Your task to perform on an android device: Open the calendar app, open the side menu, and click the "Day" option Image 0: 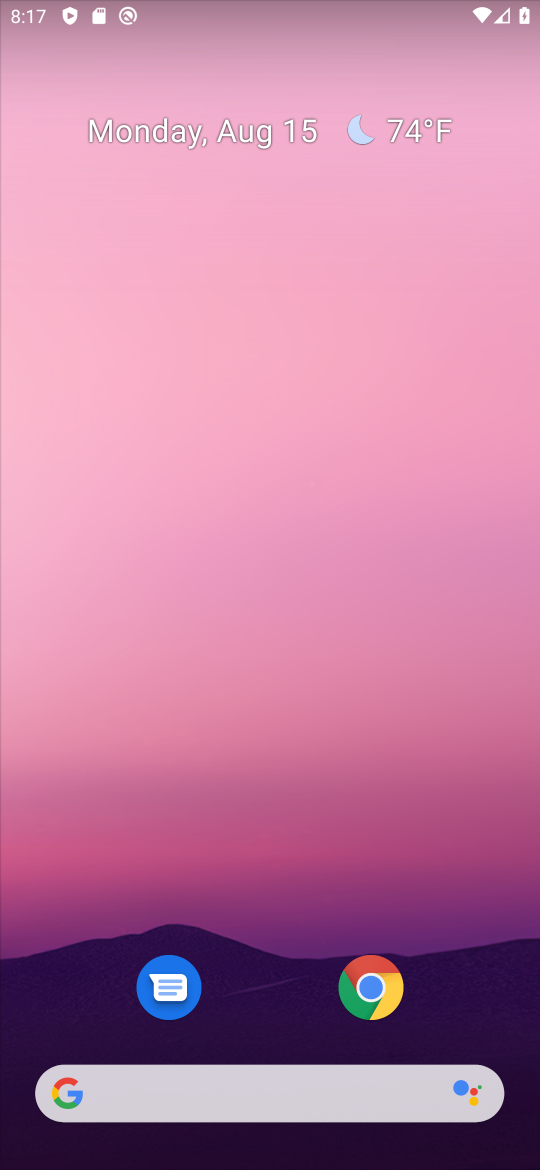
Step 0: drag from (296, 1036) to (220, 427)
Your task to perform on an android device: Open the calendar app, open the side menu, and click the "Day" option Image 1: 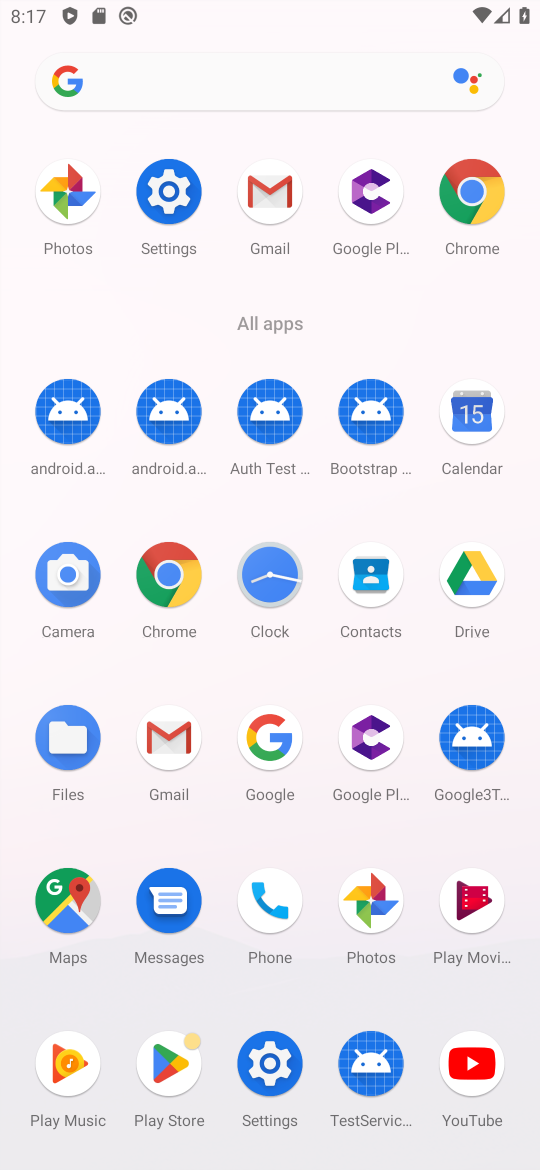
Step 1: click (454, 423)
Your task to perform on an android device: Open the calendar app, open the side menu, and click the "Day" option Image 2: 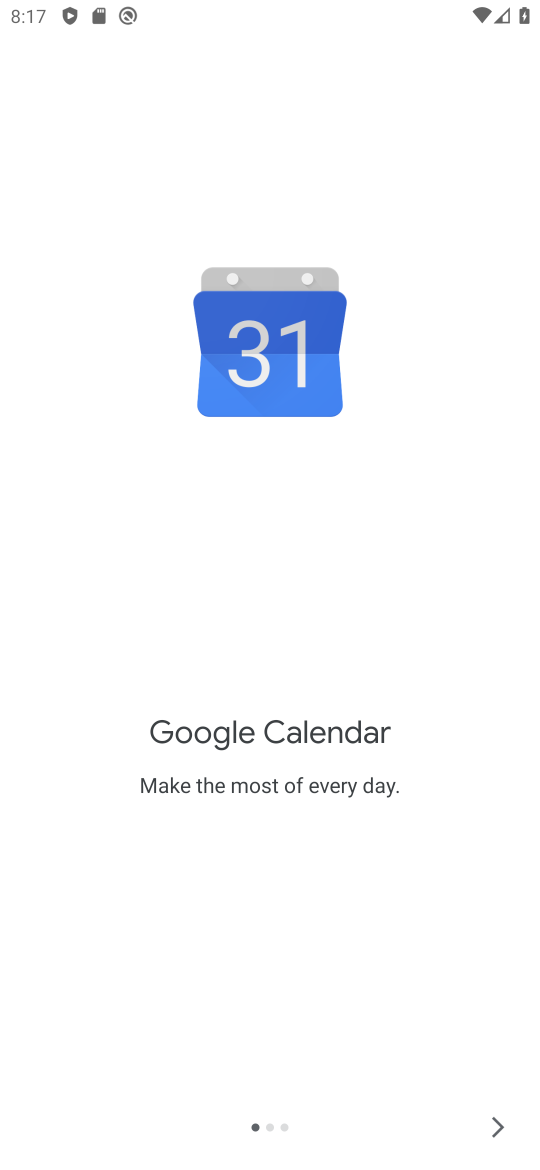
Step 2: click (487, 1127)
Your task to perform on an android device: Open the calendar app, open the side menu, and click the "Day" option Image 3: 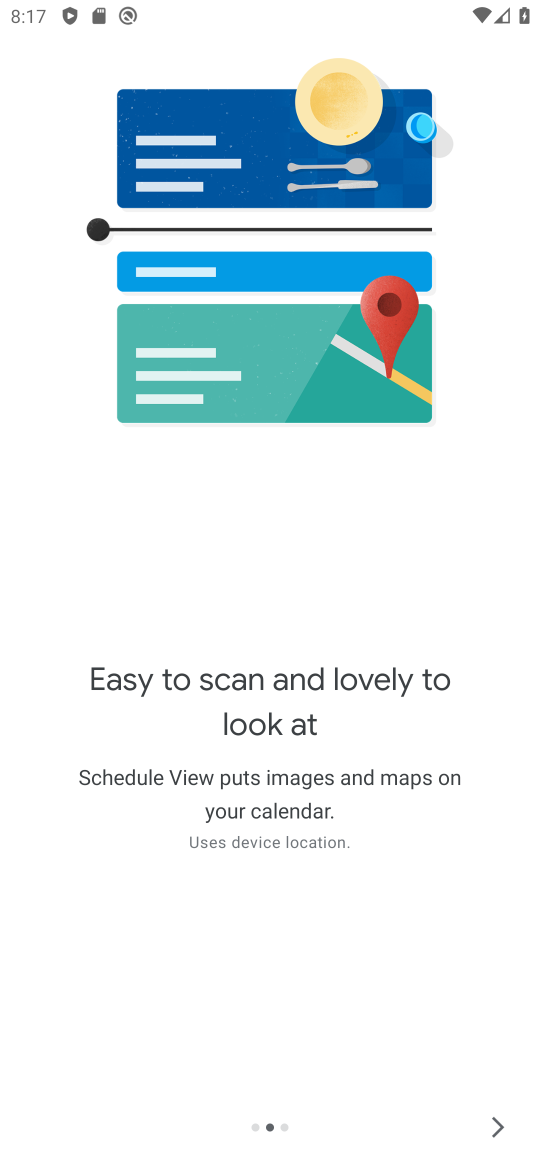
Step 3: click (487, 1127)
Your task to perform on an android device: Open the calendar app, open the side menu, and click the "Day" option Image 4: 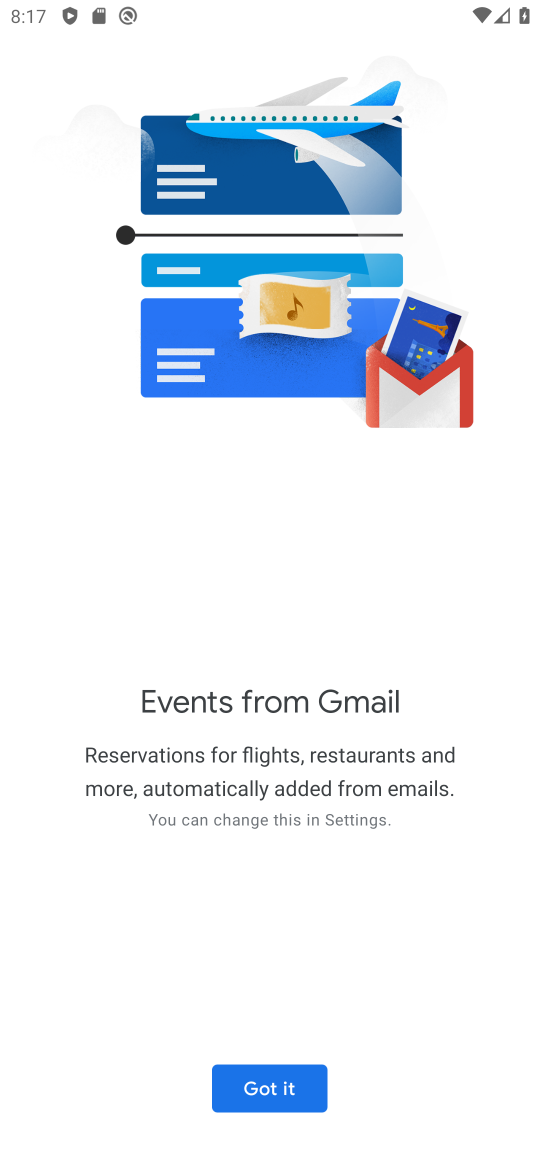
Step 4: click (287, 1091)
Your task to perform on an android device: Open the calendar app, open the side menu, and click the "Day" option Image 5: 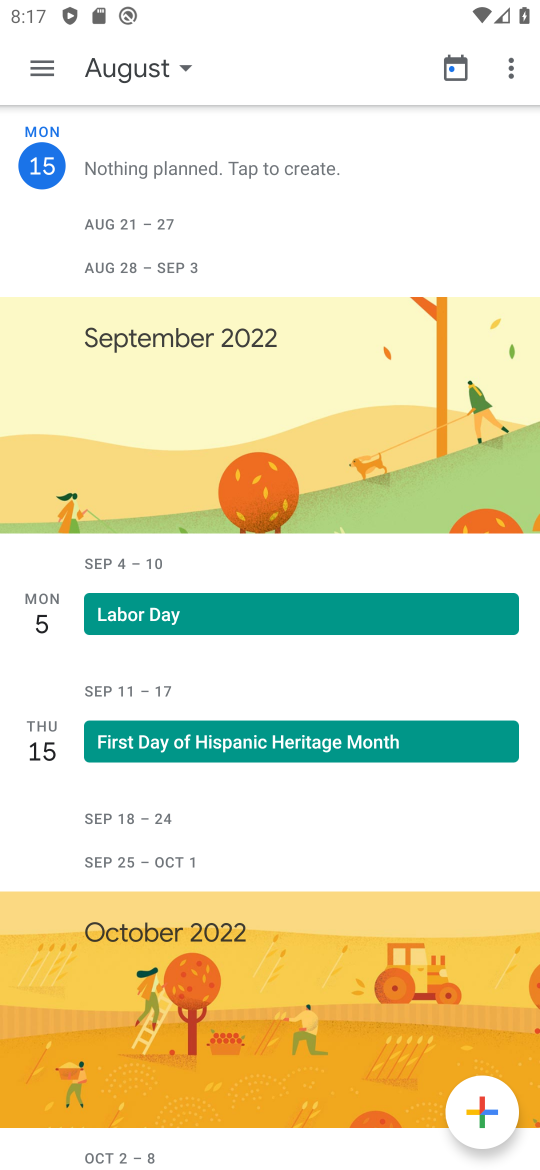
Step 5: click (42, 52)
Your task to perform on an android device: Open the calendar app, open the side menu, and click the "Day" option Image 6: 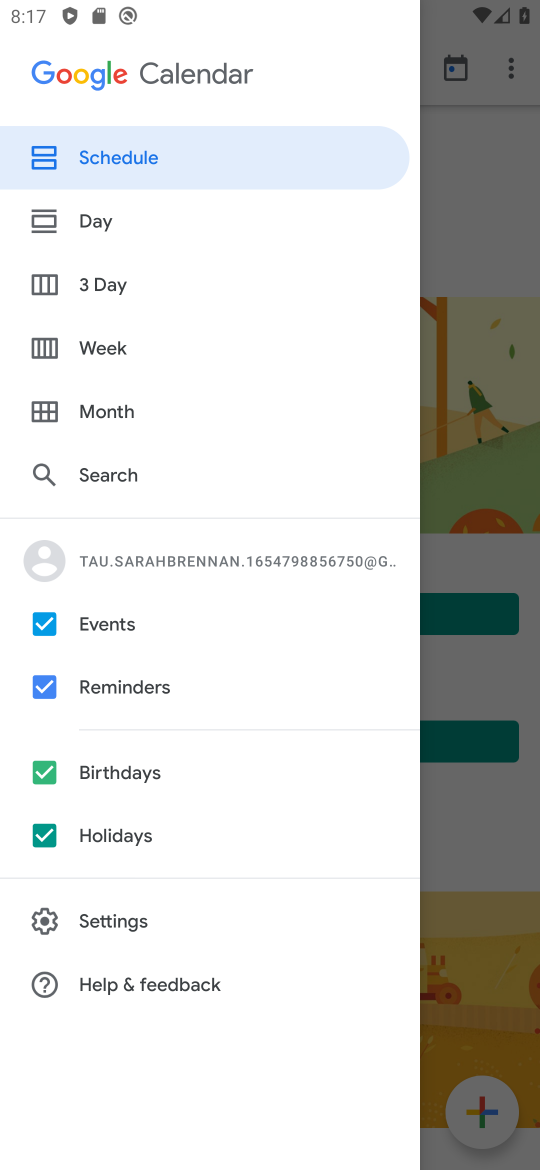
Step 6: click (75, 229)
Your task to perform on an android device: Open the calendar app, open the side menu, and click the "Day" option Image 7: 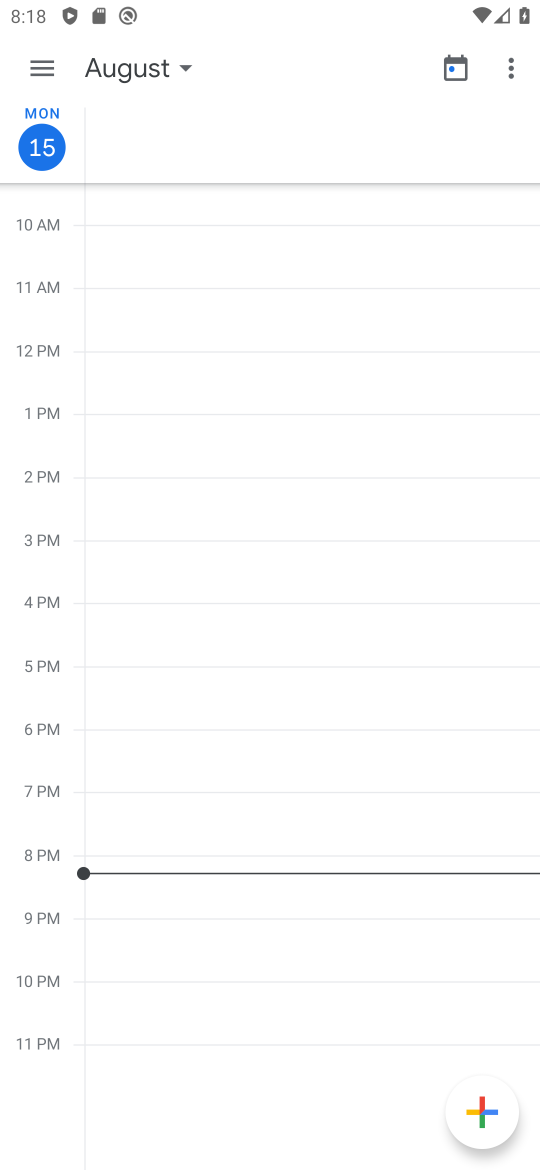
Step 7: task complete